Your task to perform on an android device: read, delete, or share a saved page in the chrome app Image 0: 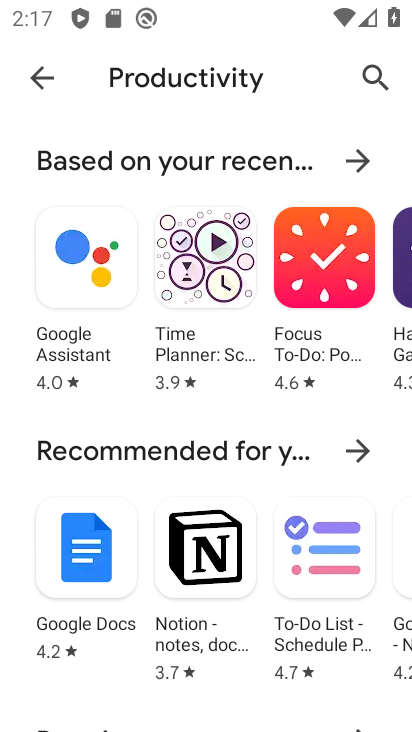
Step 0: press home button
Your task to perform on an android device: read, delete, or share a saved page in the chrome app Image 1: 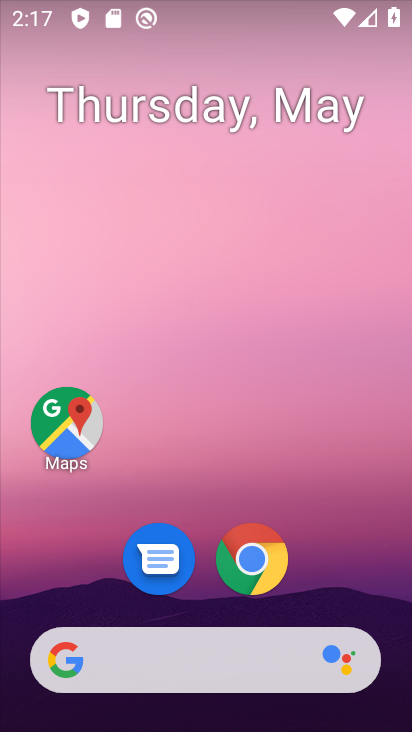
Step 1: click (255, 545)
Your task to perform on an android device: read, delete, or share a saved page in the chrome app Image 2: 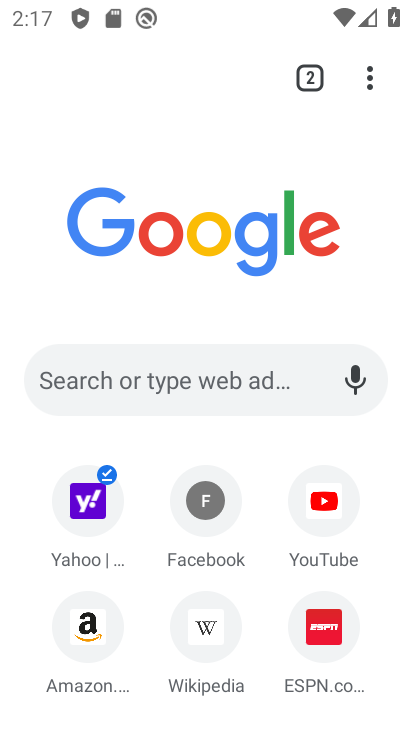
Step 2: click (367, 71)
Your task to perform on an android device: read, delete, or share a saved page in the chrome app Image 3: 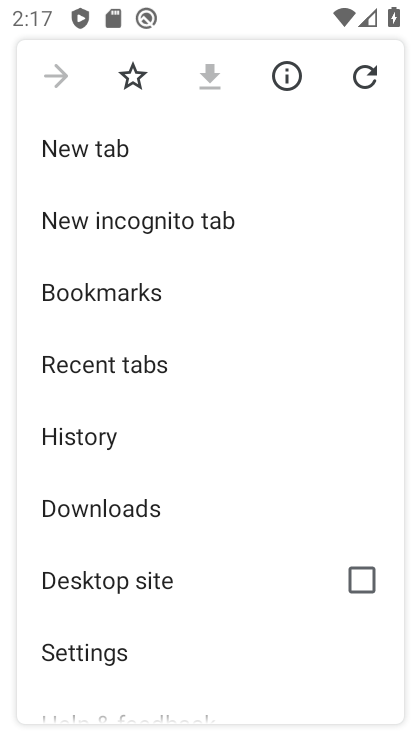
Step 3: click (124, 506)
Your task to perform on an android device: read, delete, or share a saved page in the chrome app Image 4: 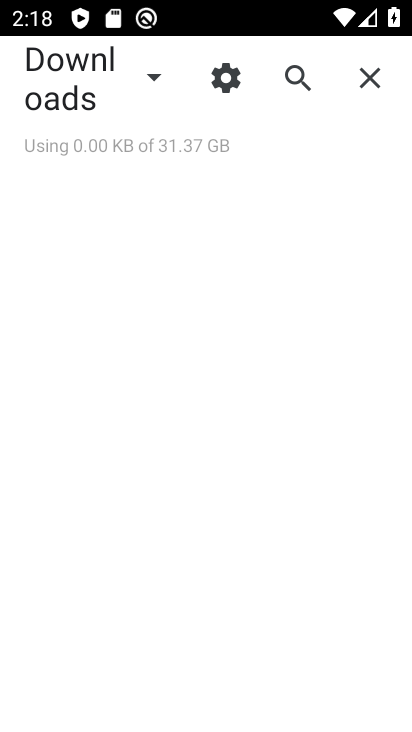
Step 4: click (154, 81)
Your task to perform on an android device: read, delete, or share a saved page in the chrome app Image 5: 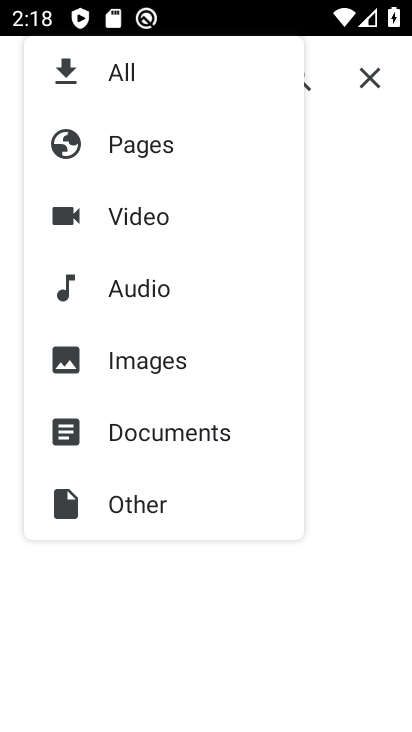
Step 5: click (143, 152)
Your task to perform on an android device: read, delete, or share a saved page in the chrome app Image 6: 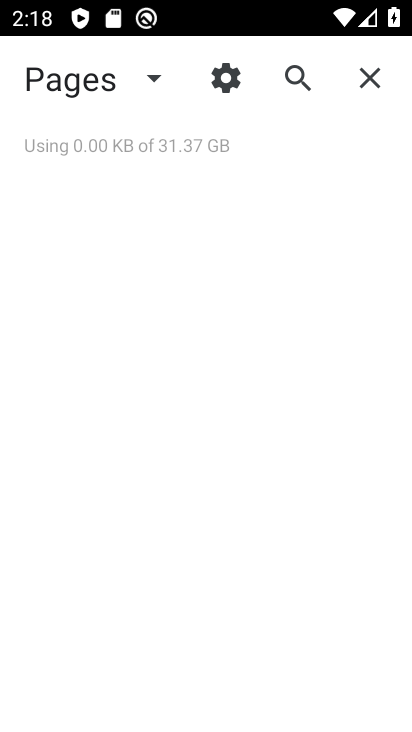
Step 6: task complete